Your task to perform on an android device: What's the weather? Image 0: 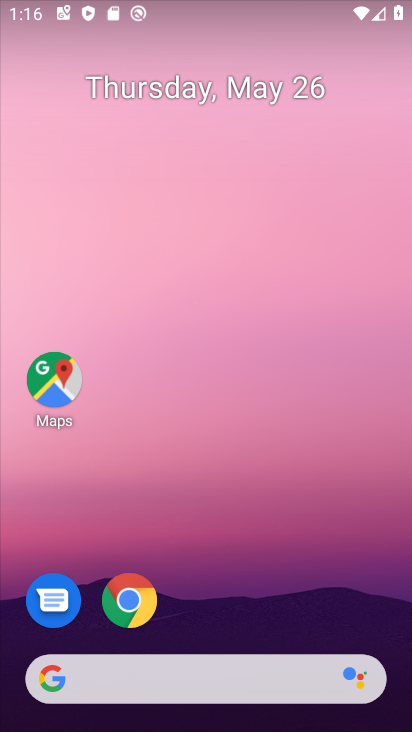
Step 0: click (221, 694)
Your task to perform on an android device: What's the weather? Image 1: 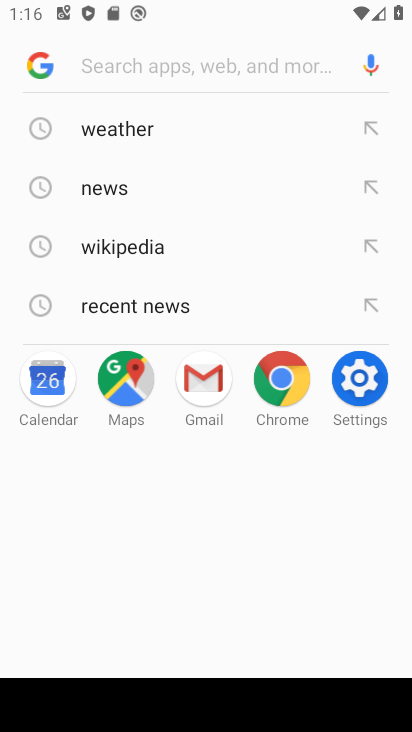
Step 1: click (135, 129)
Your task to perform on an android device: What's the weather? Image 2: 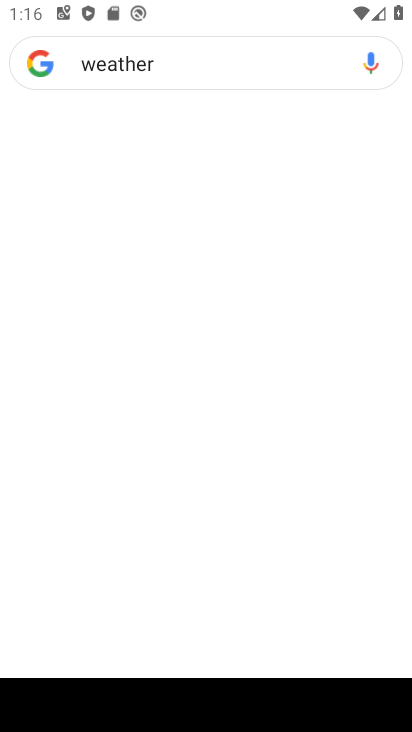
Step 2: click (135, 129)
Your task to perform on an android device: What's the weather? Image 3: 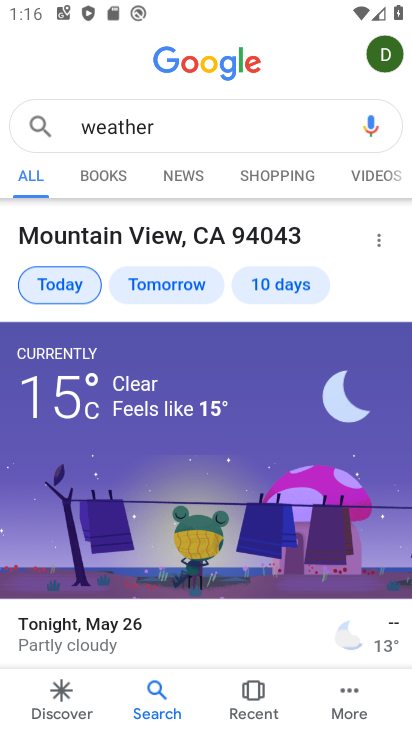
Step 3: task complete